Your task to perform on an android device: Open the web browser Image 0: 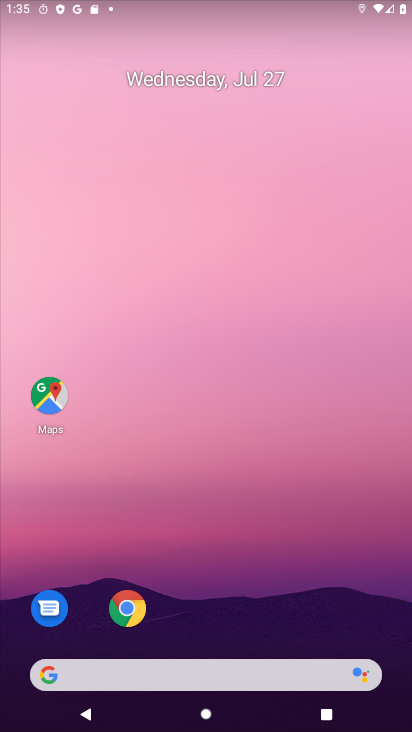
Step 0: click (131, 612)
Your task to perform on an android device: Open the web browser Image 1: 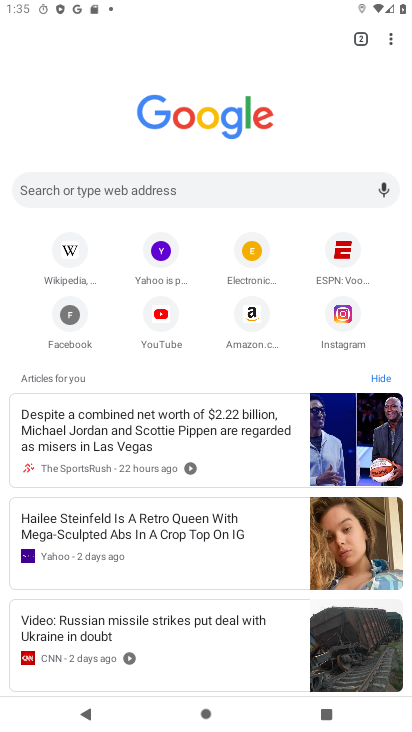
Step 1: task complete